Your task to perform on an android device: Add "macbook pro 13 inch" to the cart on target Image 0: 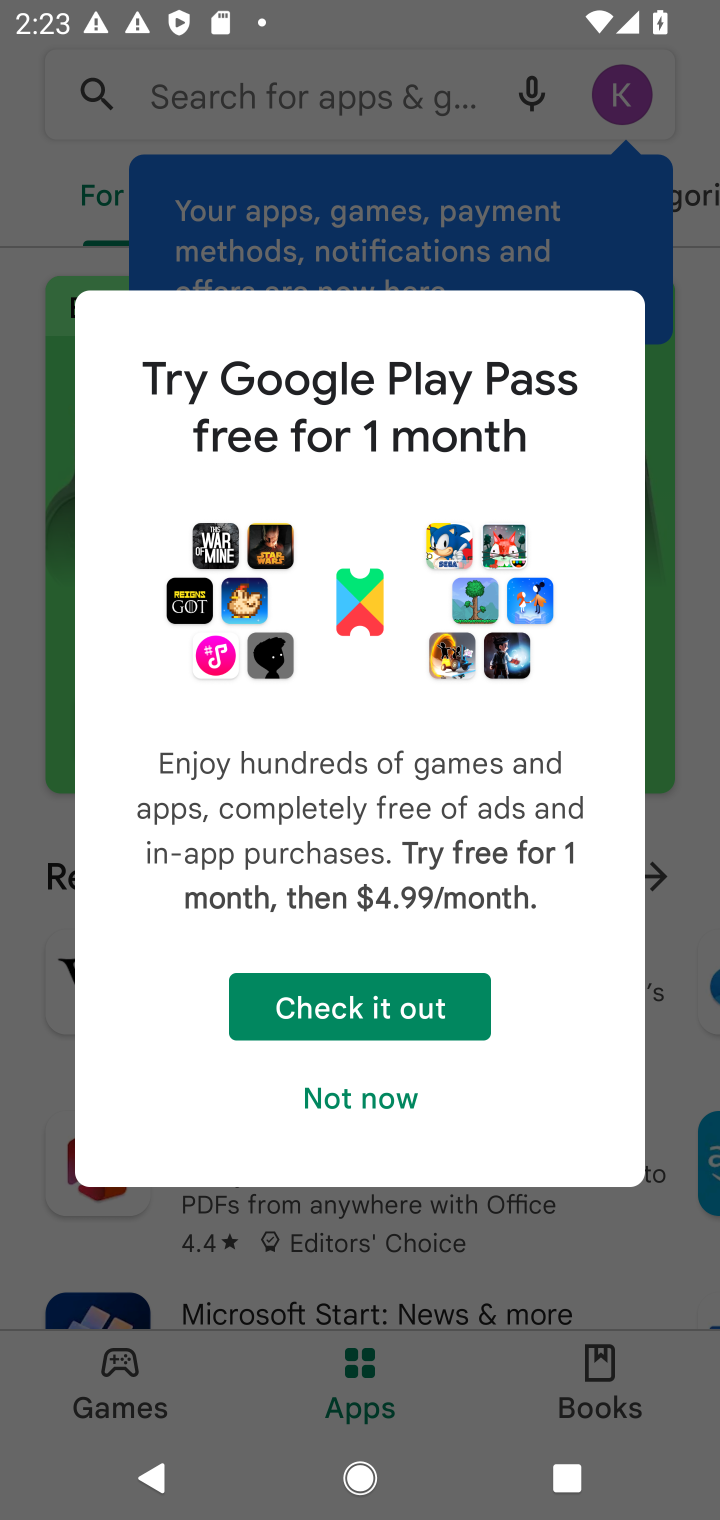
Step 0: press home button
Your task to perform on an android device: Add "macbook pro 13 inch" to the cart on target Image 1: 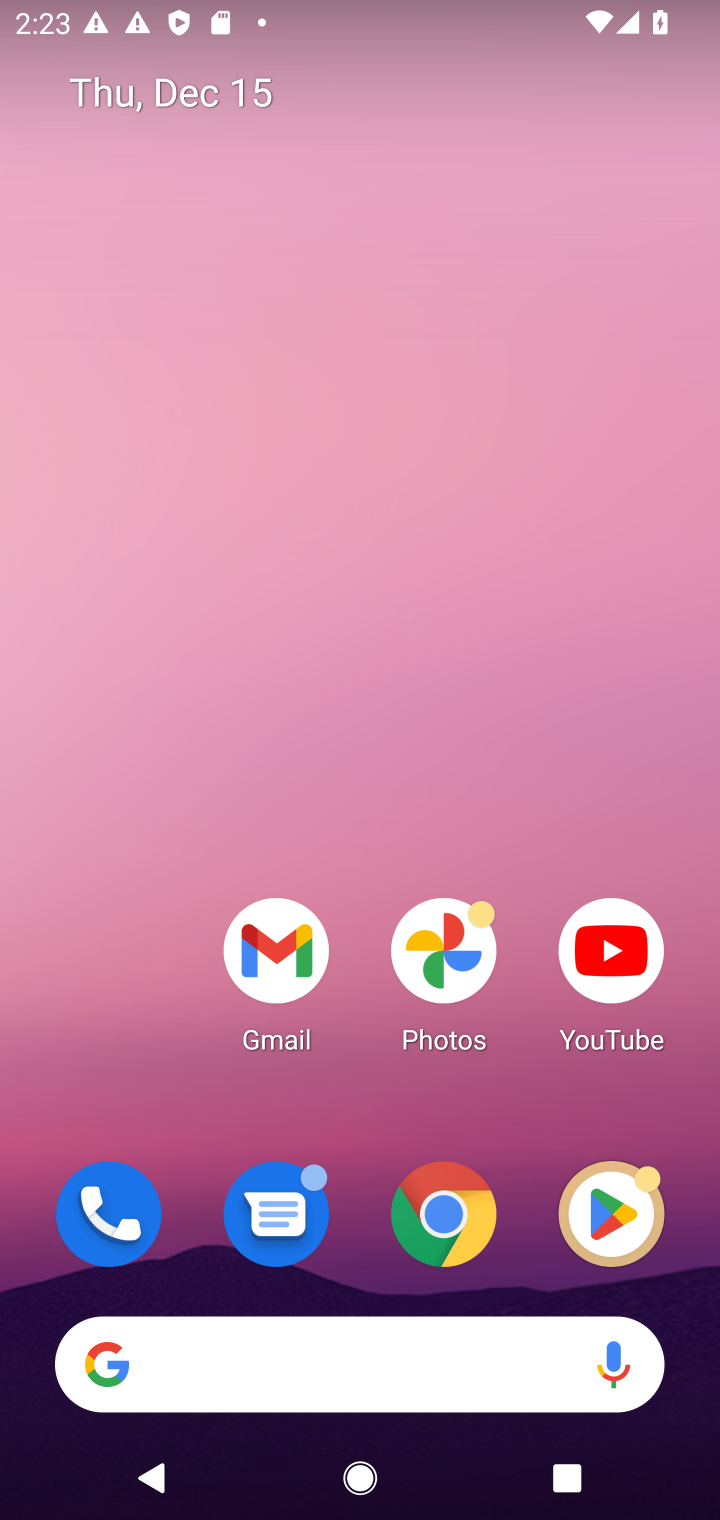
Step 1: click (440, 1254)
Your task to perform on an android device: Add "macbook pro 13 inch" to the cart on target Image 2: 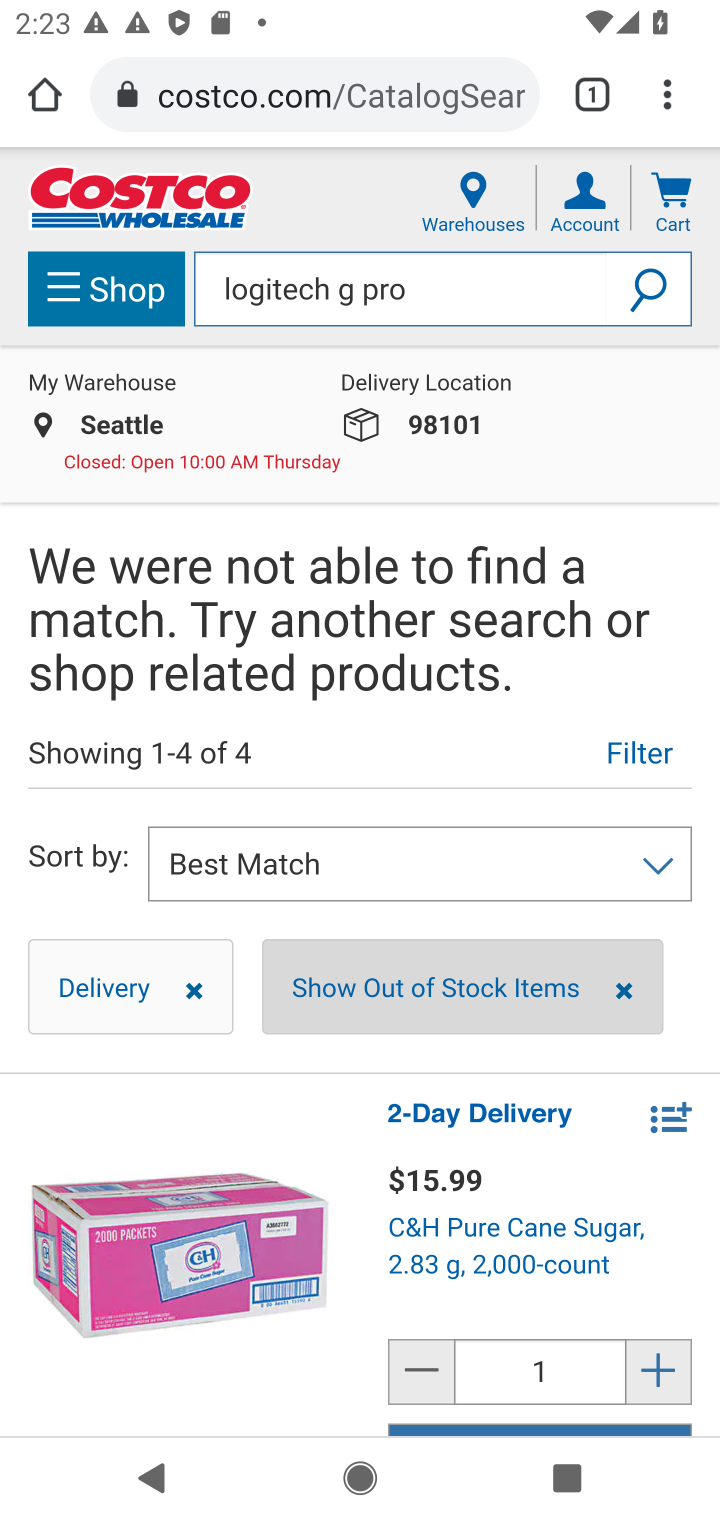
Step 2: click (309, 63)
Your task to perform on an android device: Add "macbook pro 13 inch" to the cart on target Image 3: 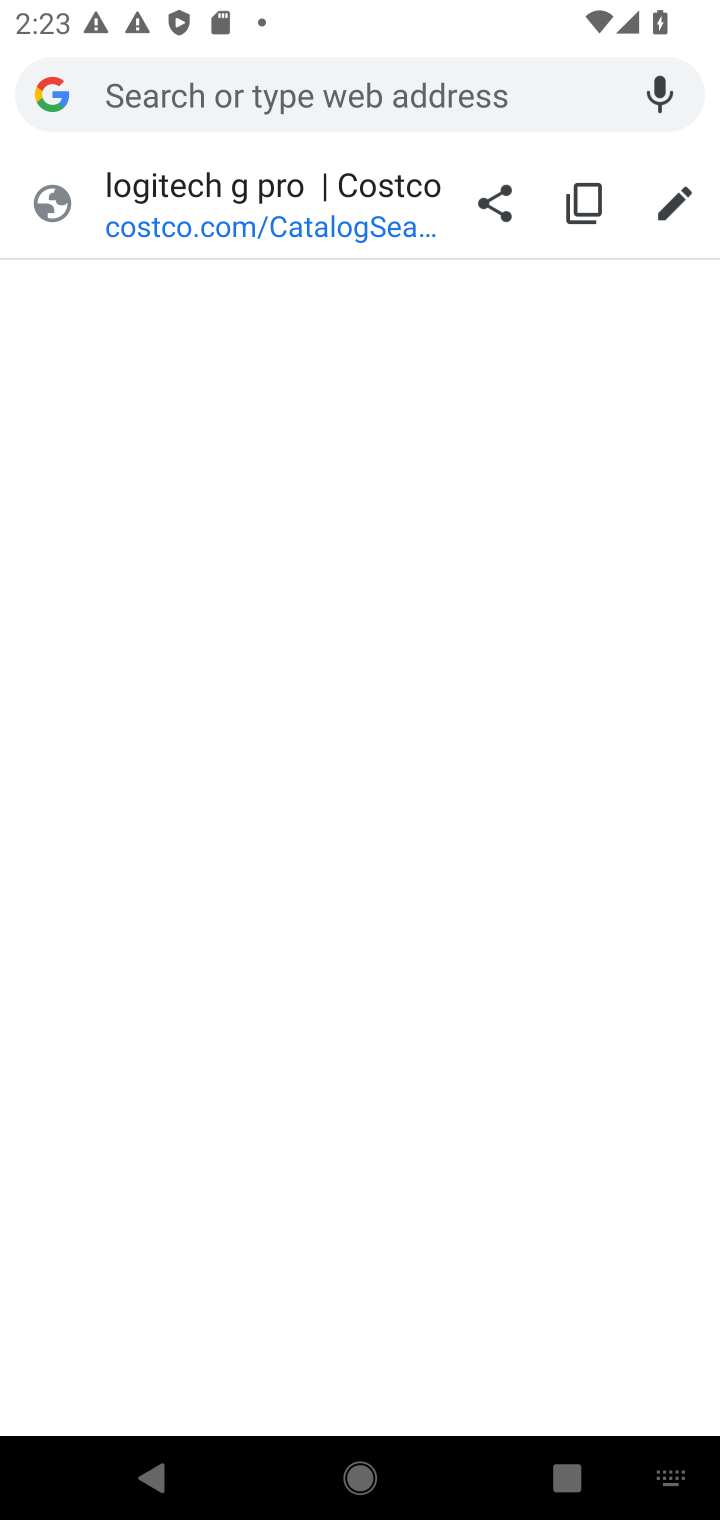
Step 3: type "target.com"
Your task to perform on an android device: Add "macbook pro 13 inch" to the cart on target Image 4: 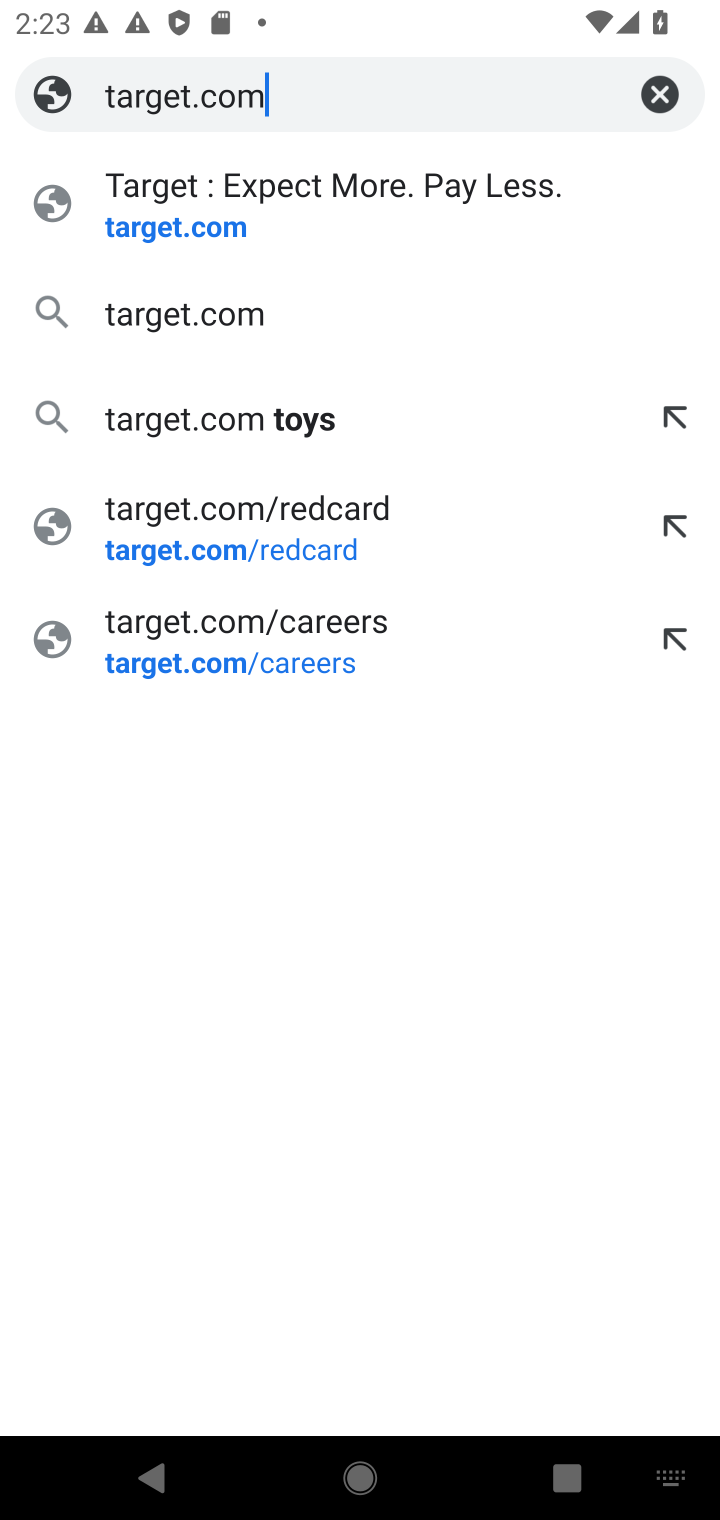
Step 4: click (170, 228)
Your task to perform on an android device: Add "macbook pro 13 inch" to the cart on target Image 5: 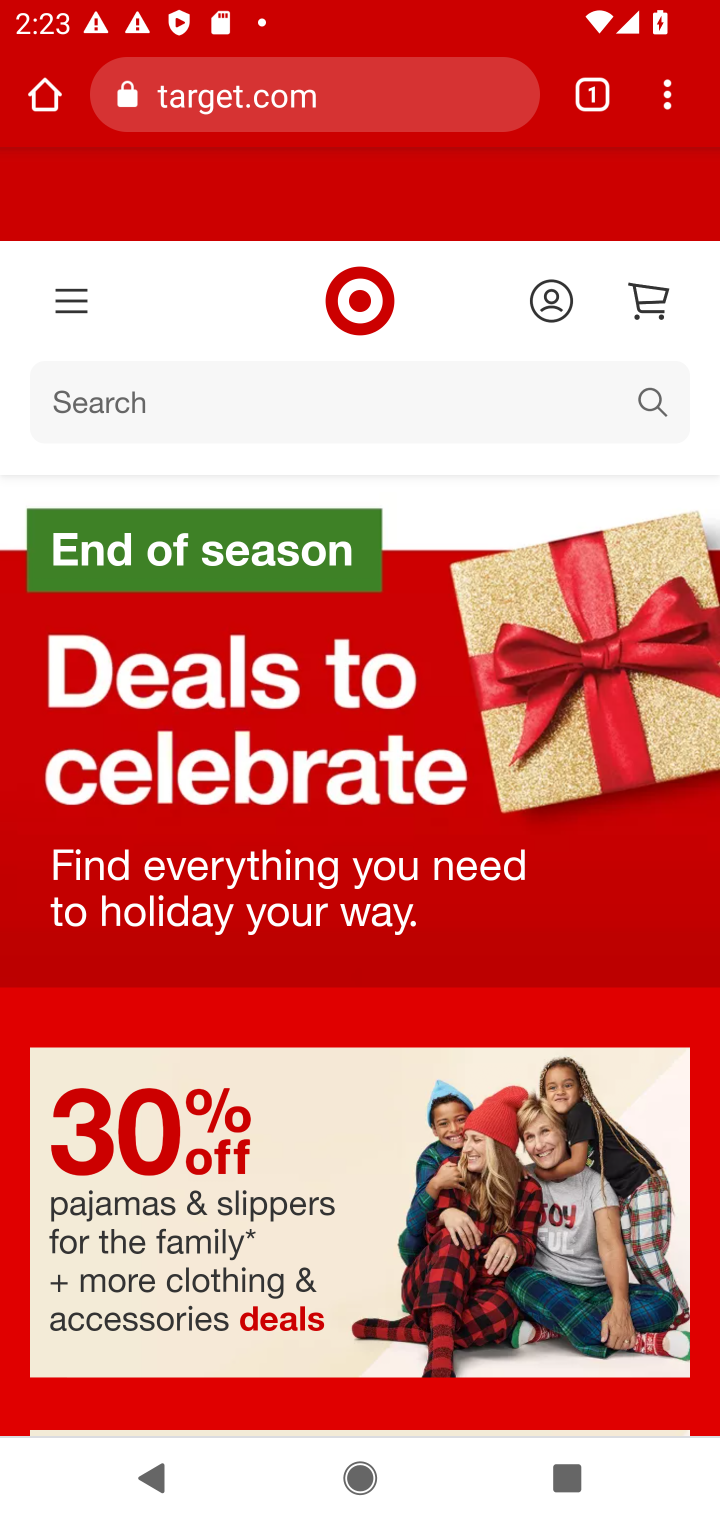
Step 5: click (142, 408)
Your task to perform on an android device: Add "macbook pro 13 inch" to the cart on target Image 6: 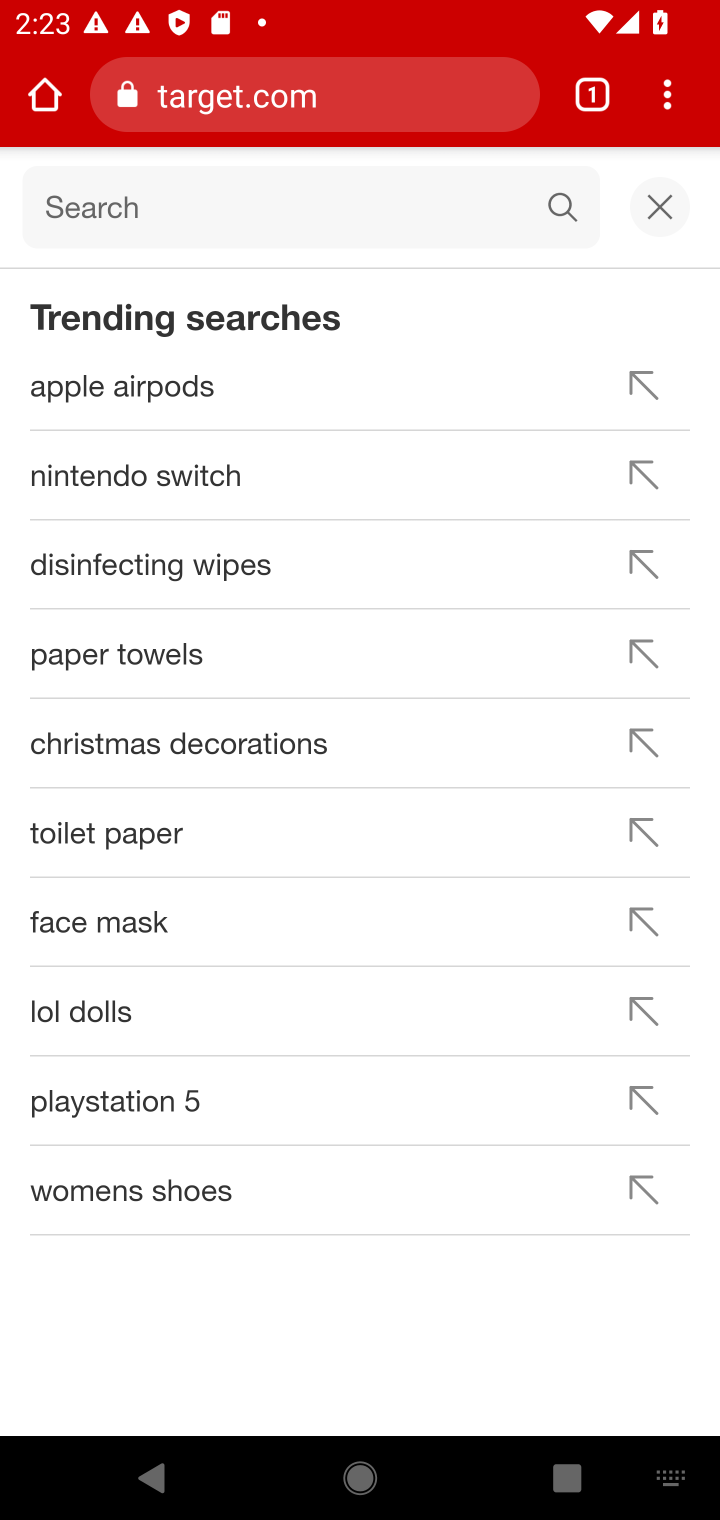
Step 6: type "macbook pro 13 inch"
Your task to perform on an android device: Add "macbook pro 13 inch" to the cart on target Image 7: 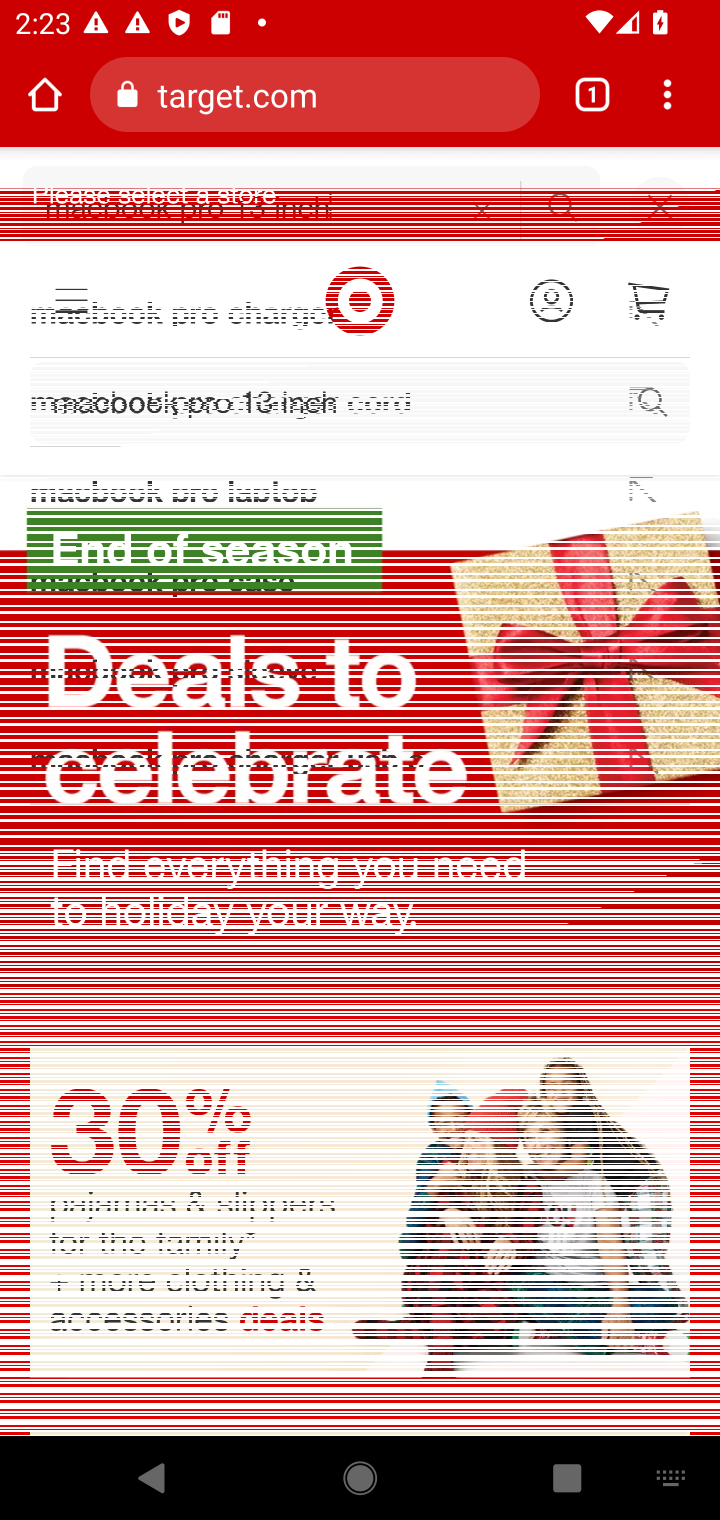
Step 7: click (564, 202)
Your task to perform on an android device: Add "macbook pro 13 inch" to the cart on target Image 8: 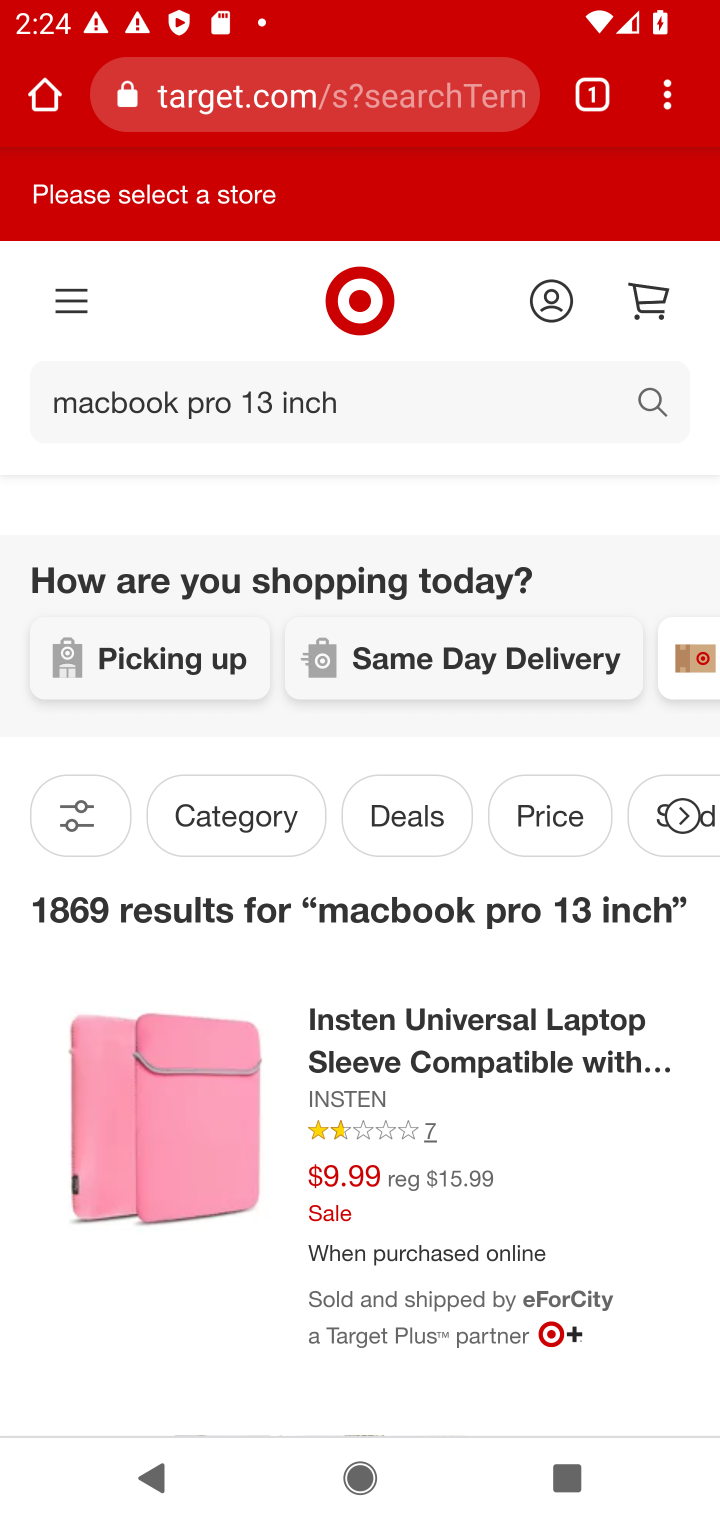
Step 8: drag from (358, 1173) to (346, 765)
Your task to perform on an android device: Add "macbook pro 13 inch" to the cart on target Image 9: 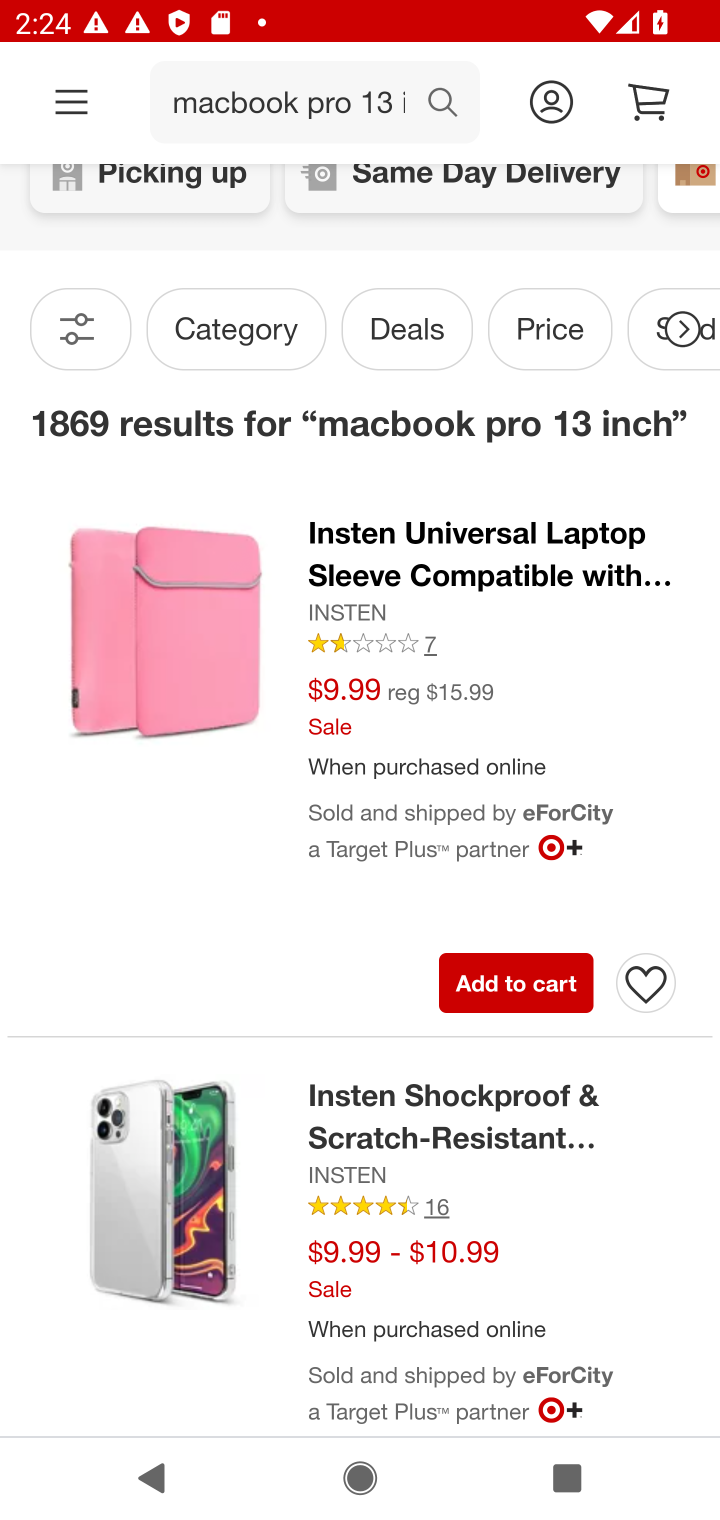
Step 9: click (331, 540)
Your task to perform on an android device: Add "macbook pro 13 inch" to the cart on target Image 10: 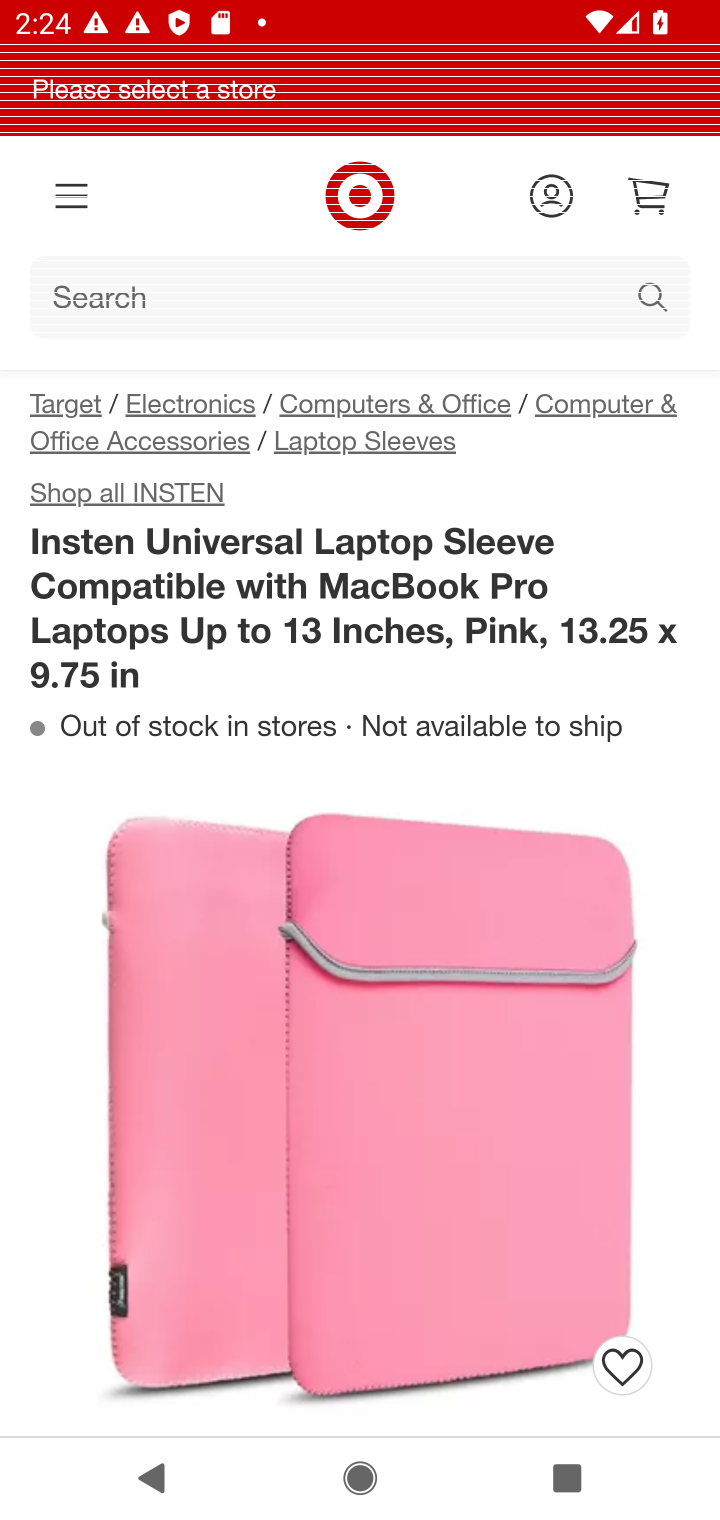
Step 10: drag from (294, 977) to (282, 548)
Your task to perform on an android device: Add "macbook pro 13 inch" to the cart on target Image 11: 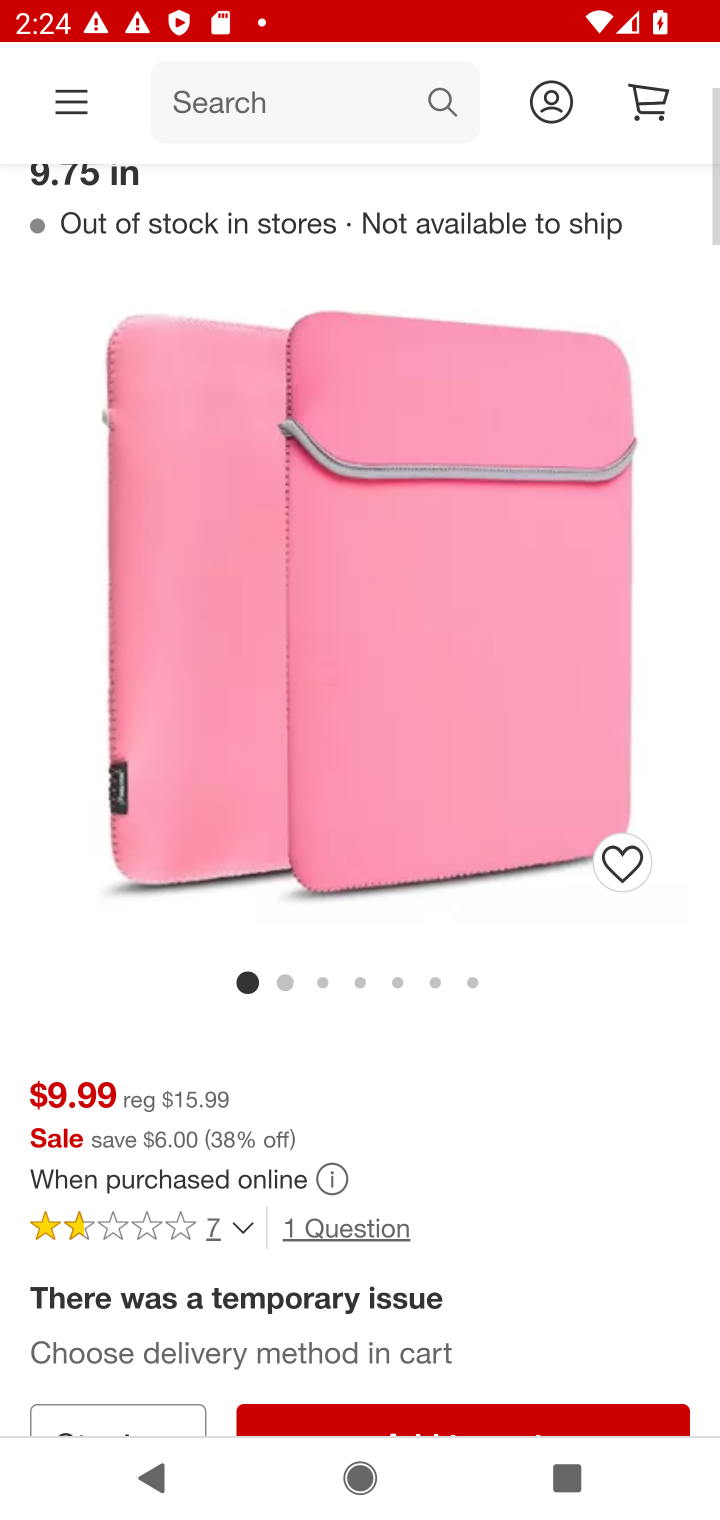
Step 11: drag from (287, 1192) to (267, 698)
Your task to perform on an android device: Add "macbook pro 13 inch" to the cart on target Image 12: 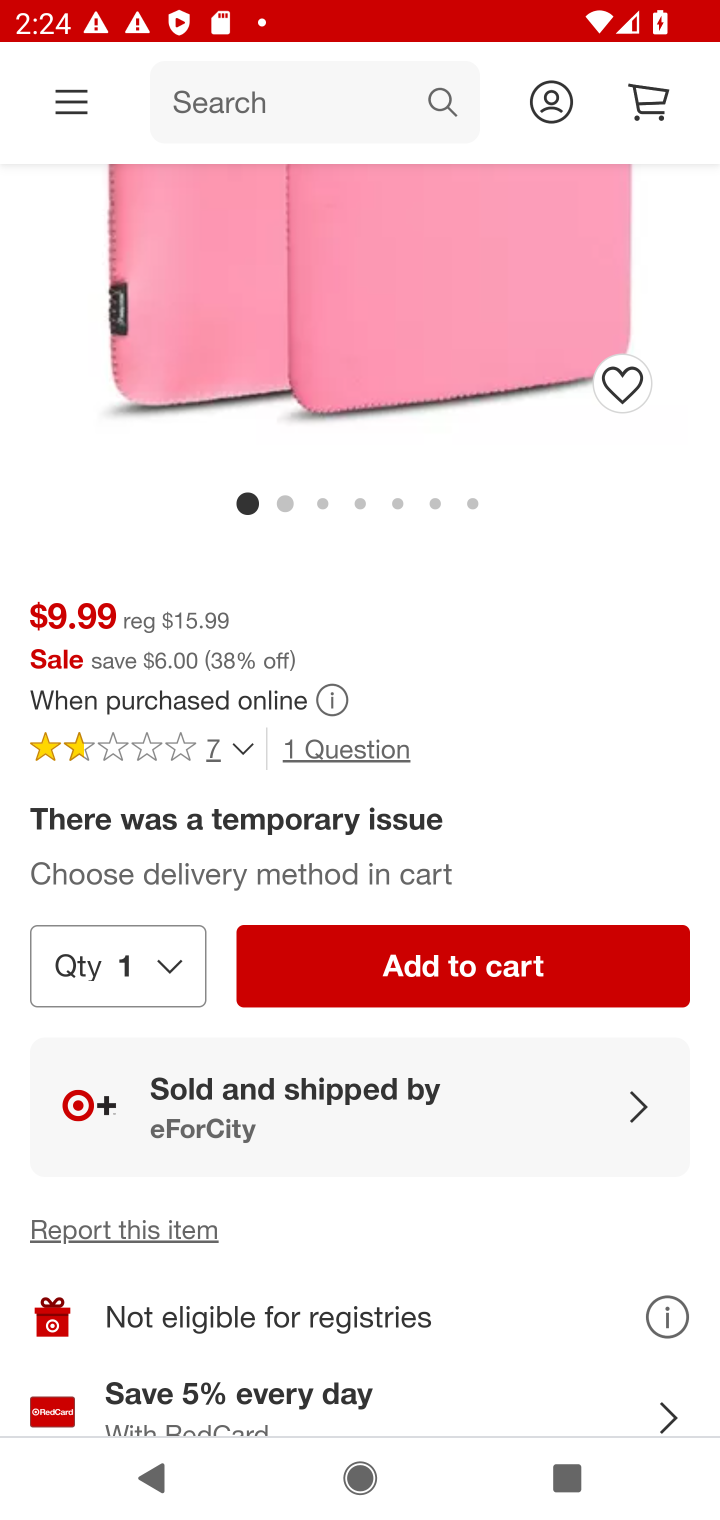
Step 12: click (407, 987)
Your task to perform on an android device: Add "macbook pro 13 inch" to the cart on target Image 13: 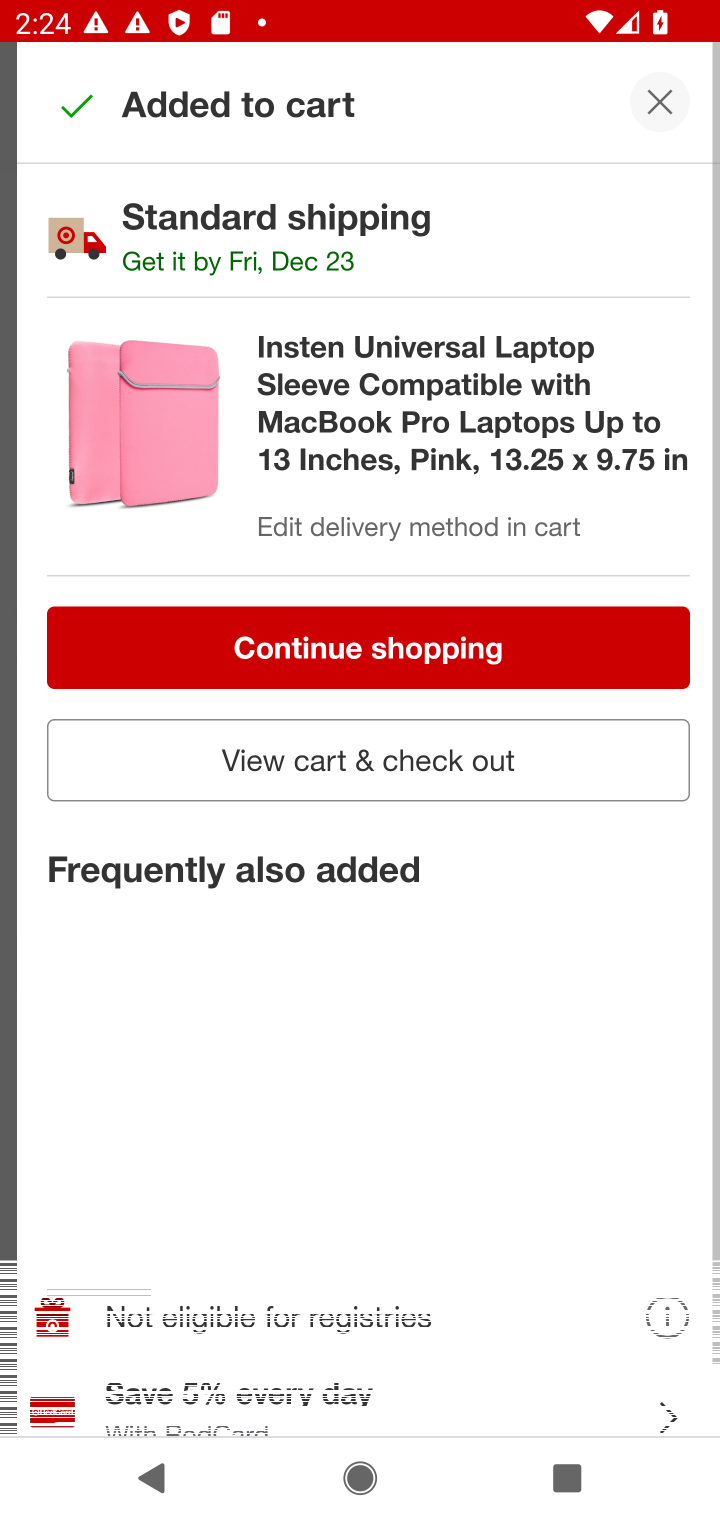
Step 13: task complete